Your task to perform on an android device: toggle wifi Image 0: 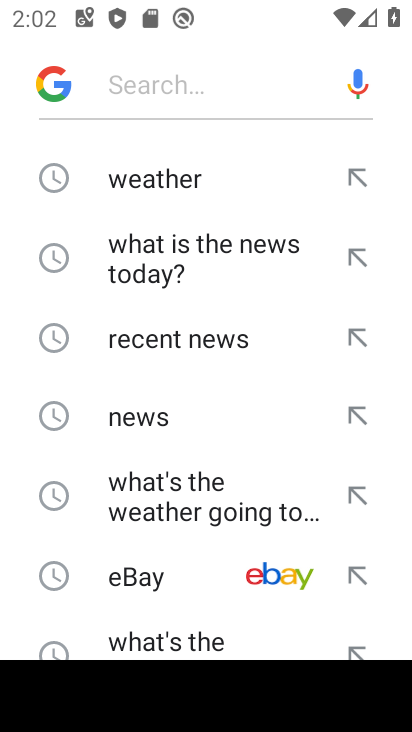
Step 0: press home button
Your task to perform on an android device: toggle wifi Image 1: 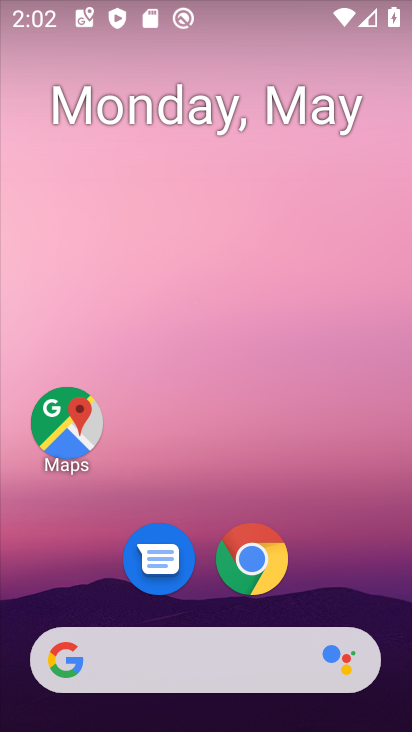
Step 1: drag from (268, 717) to (253, 58)
Your task to perform on an android device: toggle wifi Image 2: 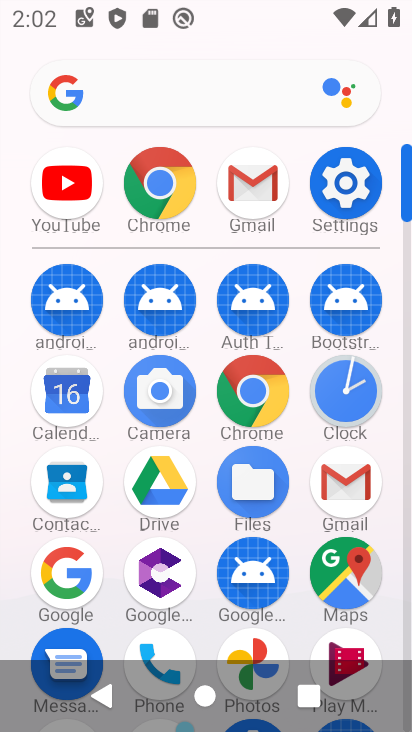
Step 2: click (344, 179)
Your task to perform on an android device: toggle wifi Image 3: 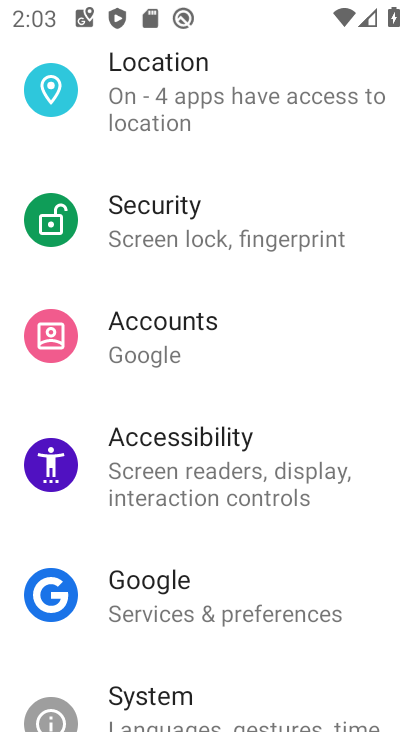
Step 3: drag from (287, 114) to (294, 730)
Your task to perform on an android device: toggle wifi Image 4: 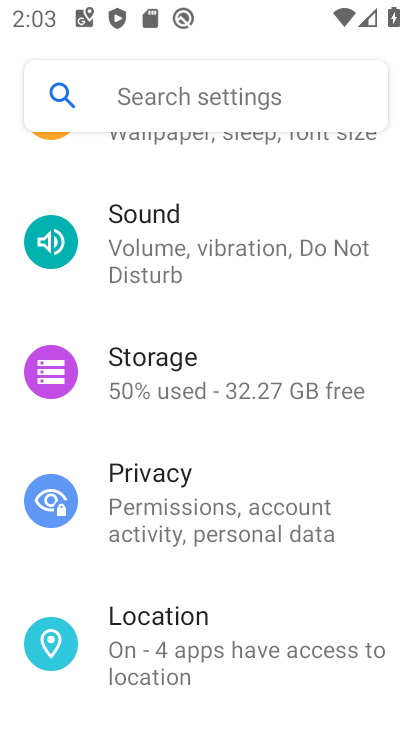
Step 4: drag from (366, 298) to (377, 713)
Your task to perform on an android device: toggle wifi Image 5: 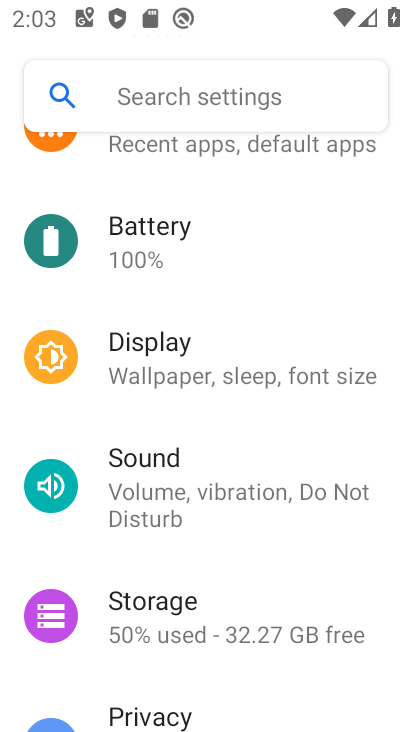
Step 5: drag from (259, 175) to (220, 654)
Your task to perform on an android device: toggle wifi Image 6: 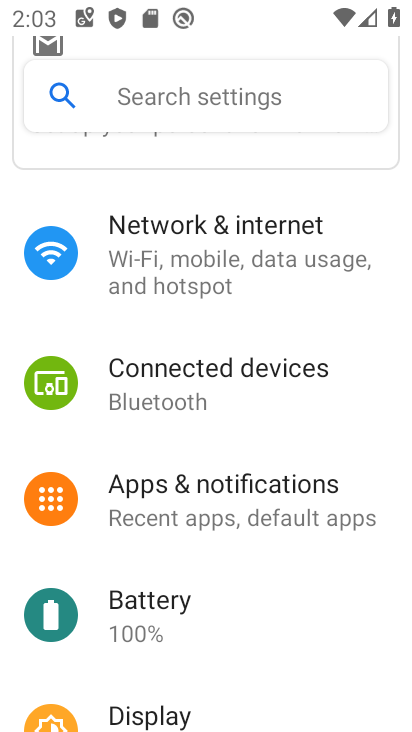
Step 6: click (245, 254)
Your task to perform on an android device: toggle wifi Image 7: 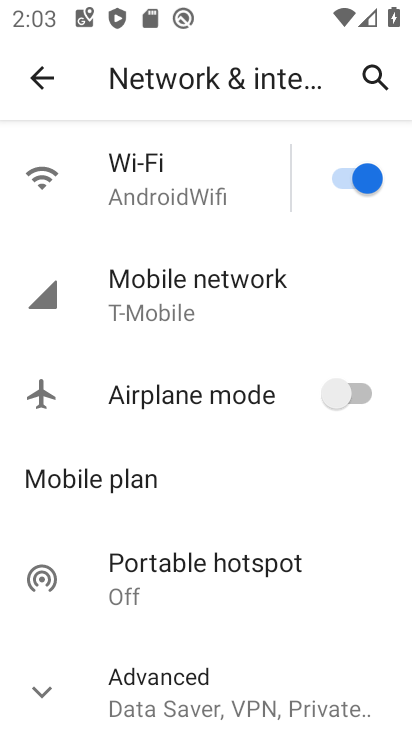
Step 7: task complete